Your task to perform on an android device: Show me productivity apps on the Play Store Image 0: 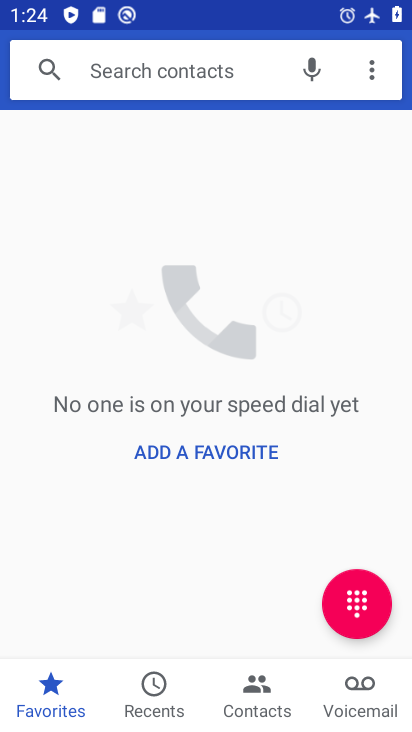
Step 0: press home button
Your task to perform on an android device: Show me productivity apps on the Play Store Image 1: 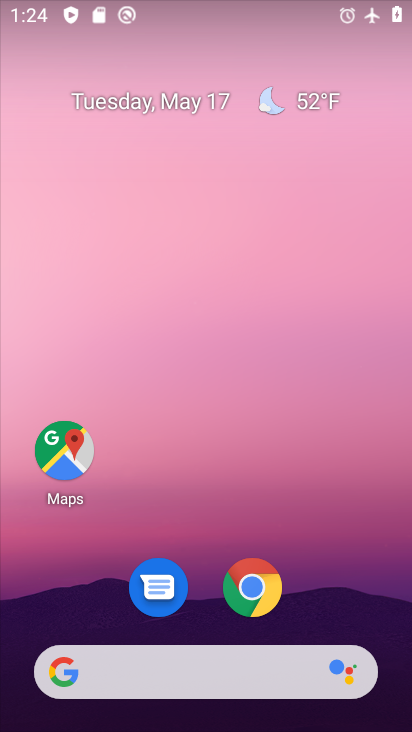
Step 1: drag from (340, 618) to (323, 118)
Your task to perform on an android device: Show me productivity apps on the Play Store Image 2: 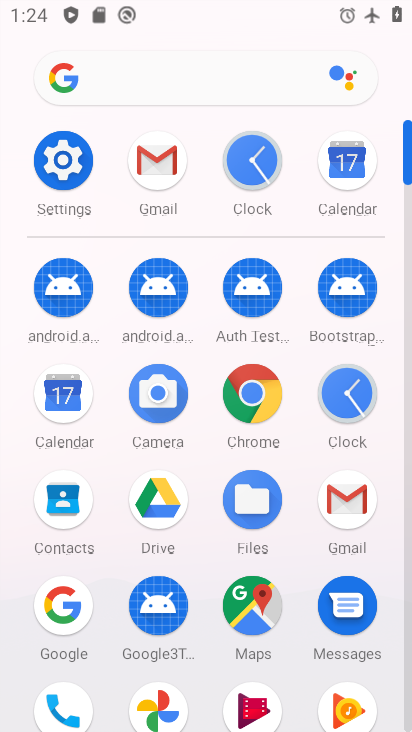
Step 2: click (55, 198)
Your task to perform on an android device: Show me productivity apps on the Play Store Image 3: 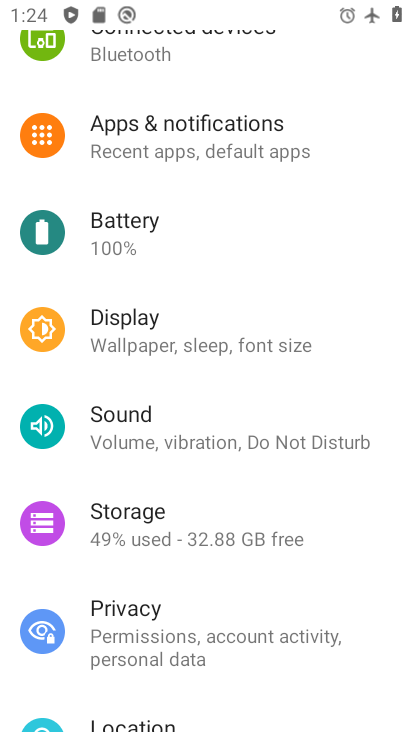
Step 3: press home button
Your task to perform on an android device: Show me productivity apps on the Play Store Image 4: 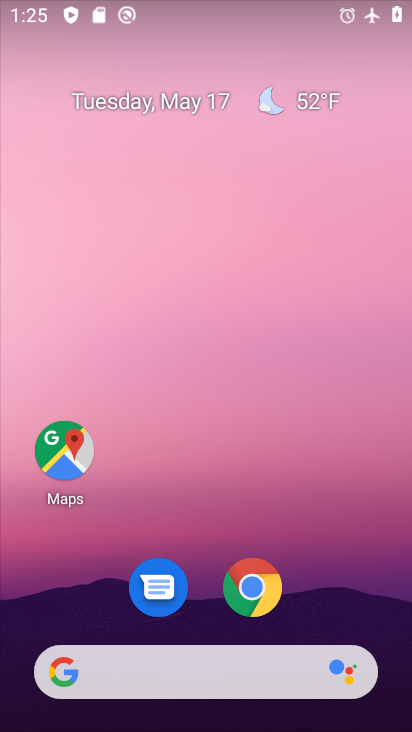
Step 4: drag from (318, 615) to (278, 198)
Your task to perform on an android device: Show me productivity apps on the Play Store Image 5: 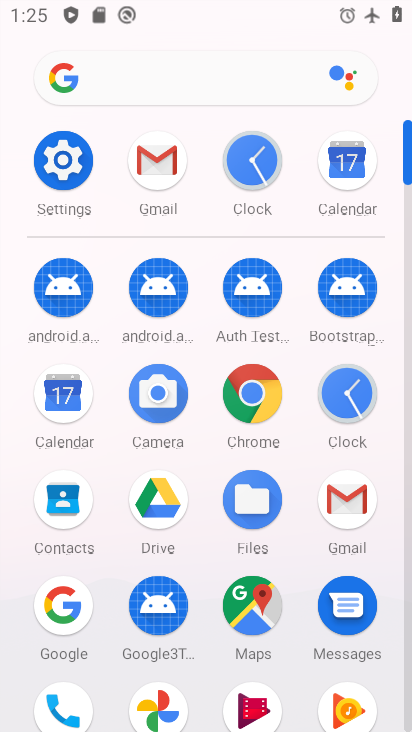
Step 5: click (404, 626)
Your task to perform on an android device: Show me productivity apps on the Play Store Image 6: 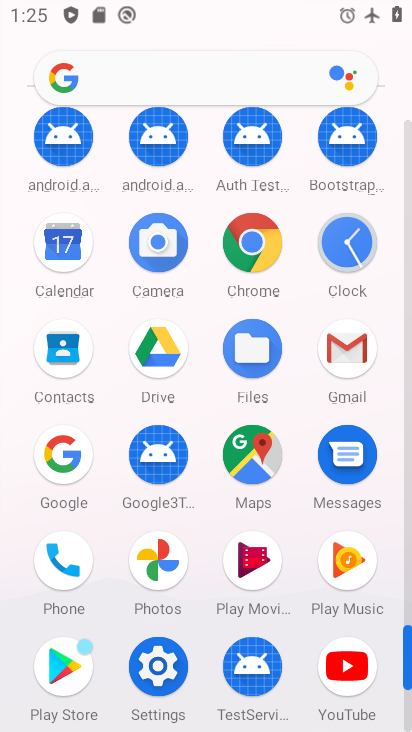
Step 6: click (68, 673)
Your task to perform on an android device: Show me productivity apps on the Play Store Image 7: 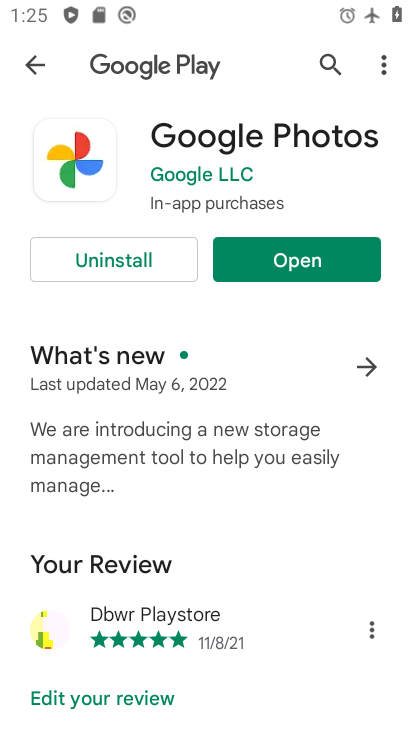
Step 7: click (43, 70)
Your task to perform on an android device: Show me productivity apps on the Play Store Image 8: 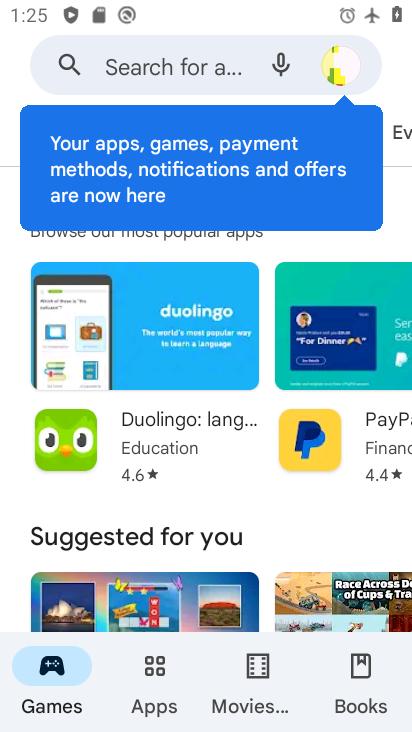
Step 8: click (146, 675)
Your task to perform on an android device: Show me productivity apps on the Play Store Image 9: 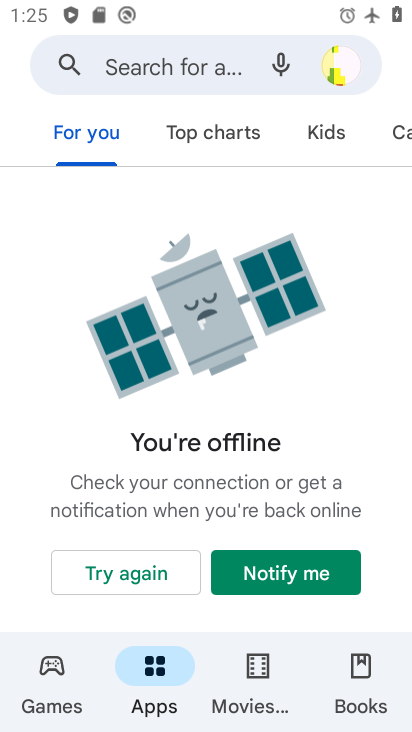
Step 9: click (105, 569)
Your task to perform on an android device: Show me productivity apps on the Play Store Image 10: 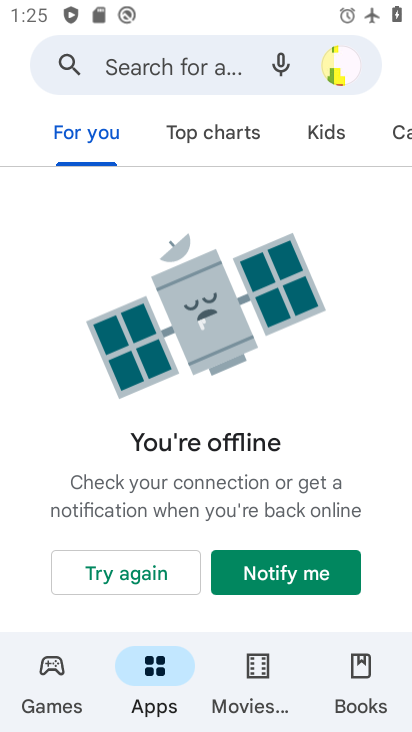
Step 10: click (105, 569)
Your task to perform on an android device: Show me productivity apps on the Play Store Image 11: 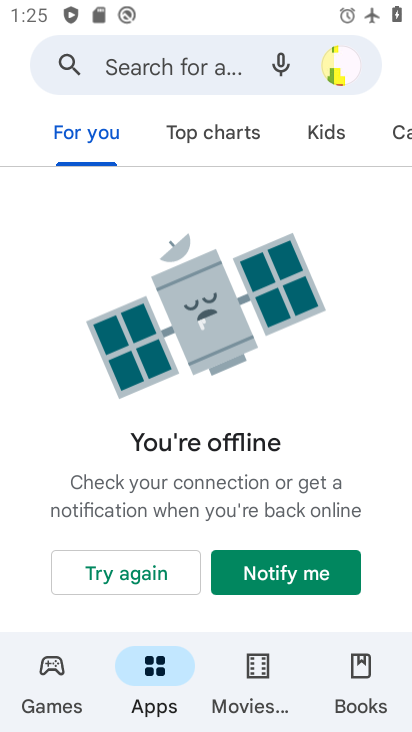
Step 11: click (214, 127)
Your task to perform on an android device: Show me productivity apps on the Play Store Image 12: 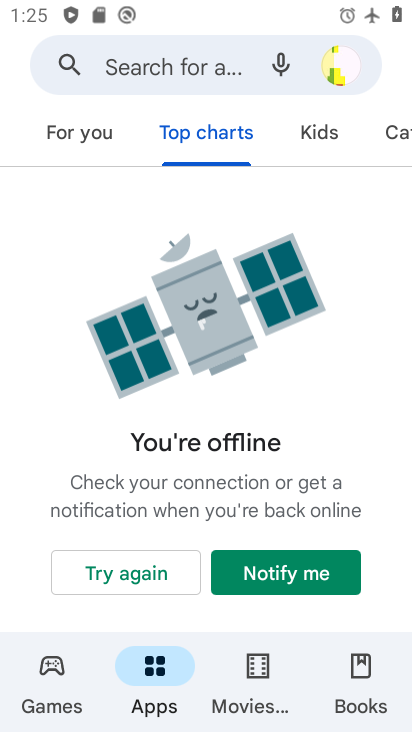
Step 12: task complete